Your task to perform on an android device: snooze an email in the gmail app Image 0: 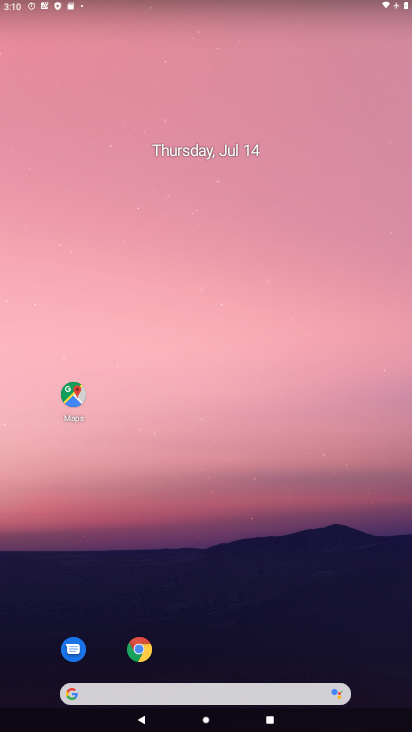
Step 0: drag from (236, 628) to (239, 181)
Your task to perform on an android device: snooze an email in the gmail app Image 1: 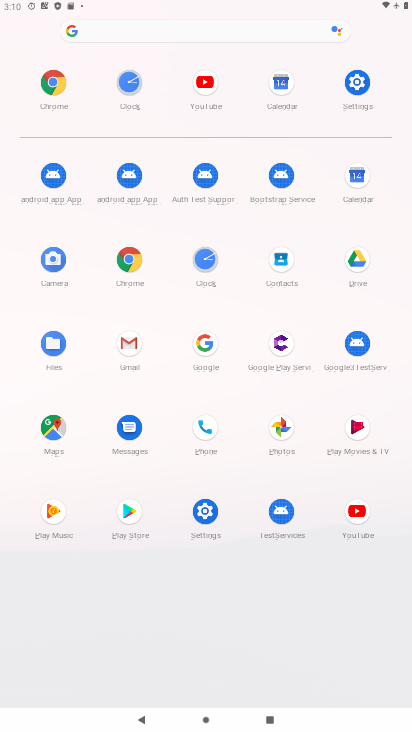
Step 1: click (121, 339)
Your task to perform on an android device: snooze an email in the gmail app Image 2: 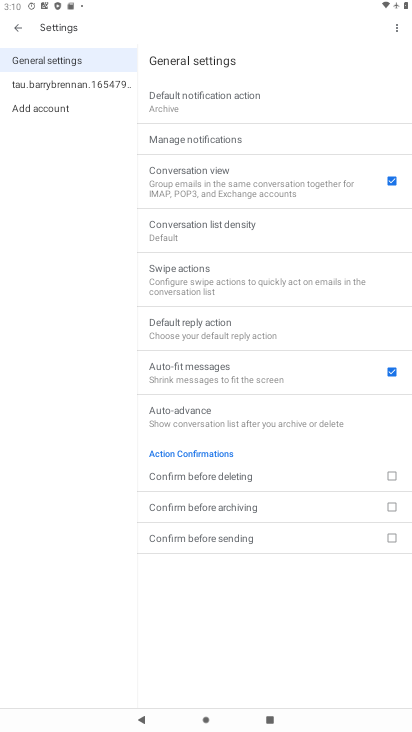
Step 2: click (7, 15)
Your task to perform on an android device: snooze an email in the gmail app Image 3: 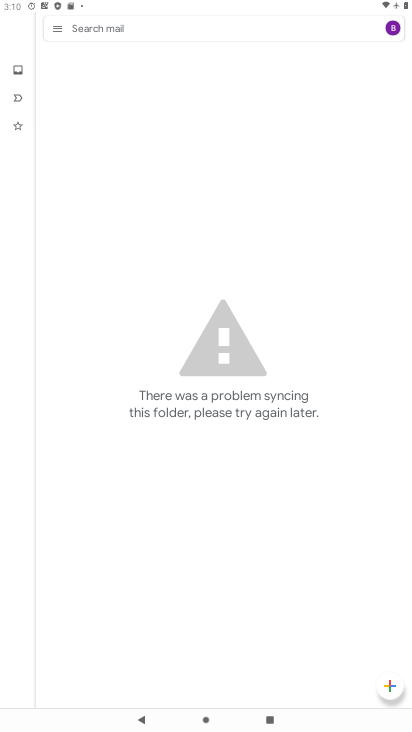
Step 3: click (53, 18)
Your task to perform on an android device: snooze an email in the gmail app Image 4: 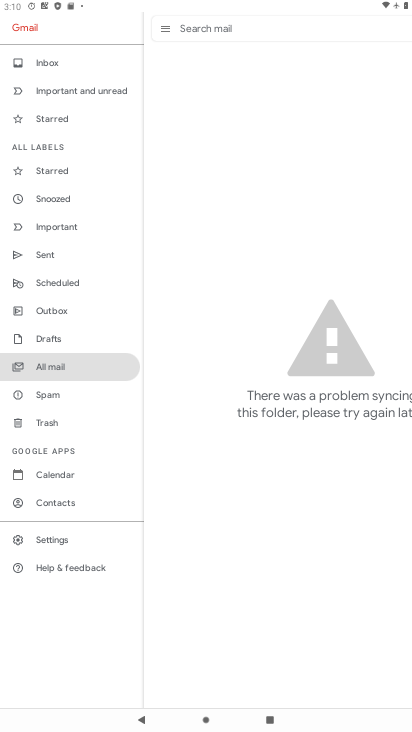
Step 4: click (77, 66)
Your task to perform on an android device: snooze an email in the gmail app Image 5: 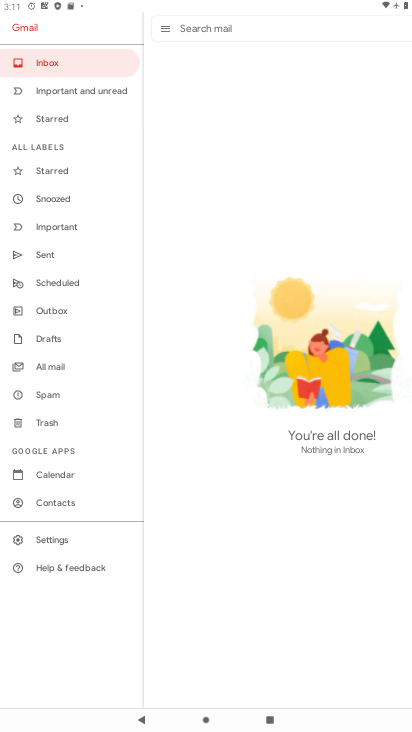
Step 5: task complete